Your task to perform on an android device: Open sound settings Image 0: 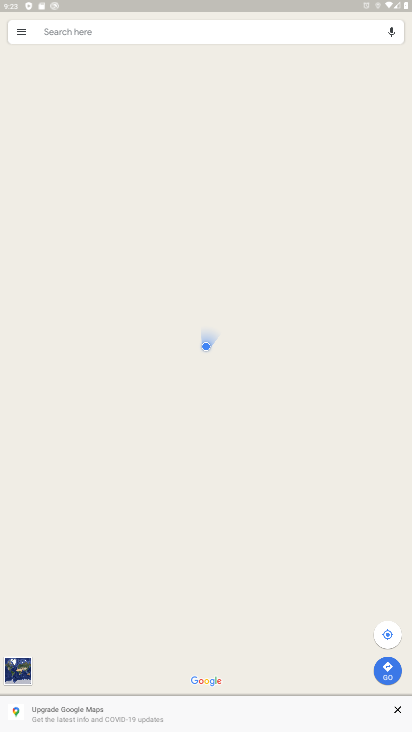
Step 0: press home button
Your task to perform on an android device: Open sound settings Image 1: 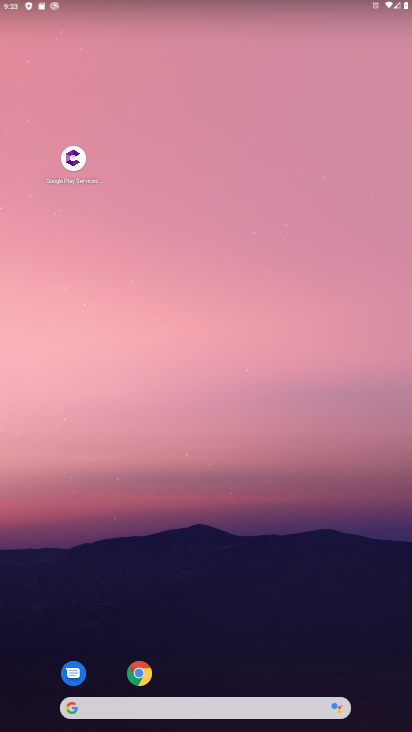
Step 1: drag from (195, 692) to (196, 80)
Your task to perform on an android device: Open sound settings Image 2: 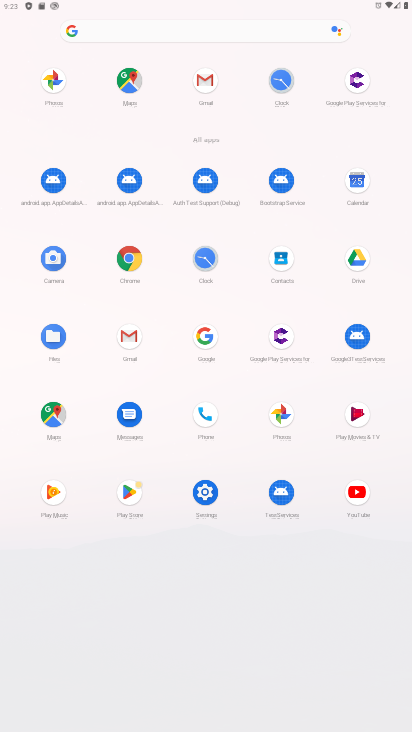
Step 2: click (210, 508)
Your task to perform on an android device: Open sound settings Image 3: 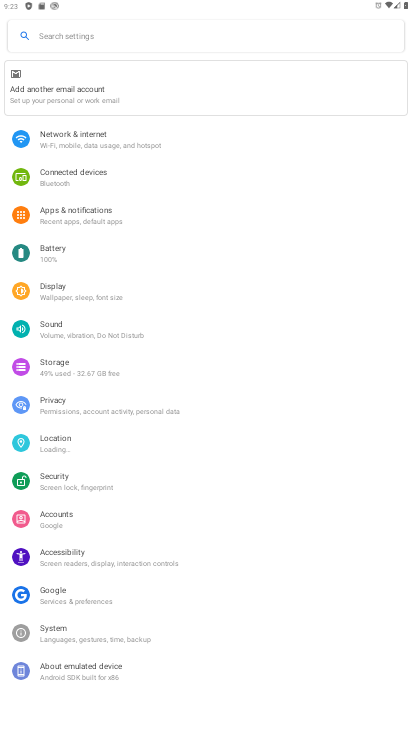
Step 3: click (40, 328)
Your task to perform on an android device: Open sound settings Image 4: 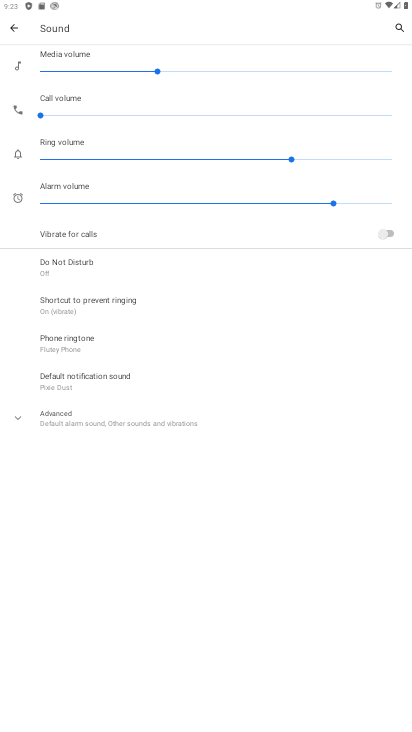
Step 4: task complete